Your task to perform on an android device: turn off picture-in-picture Image 0: 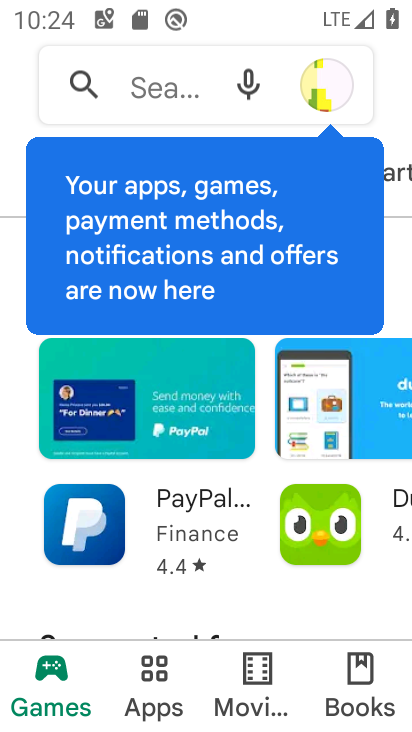
Step 0: press home button
Your task to perform on an android device: turn off picture-in-picture Image 1: 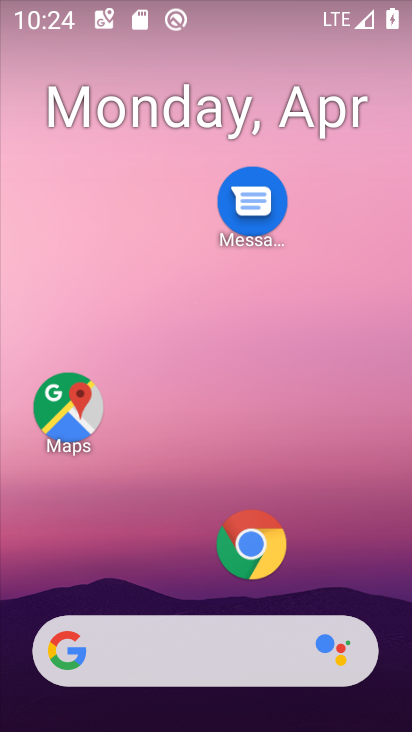
Step 1: drag from (191, 578) to (196, 137)
Your task to perform on an android device: turn off picture-in-picture Image 2: 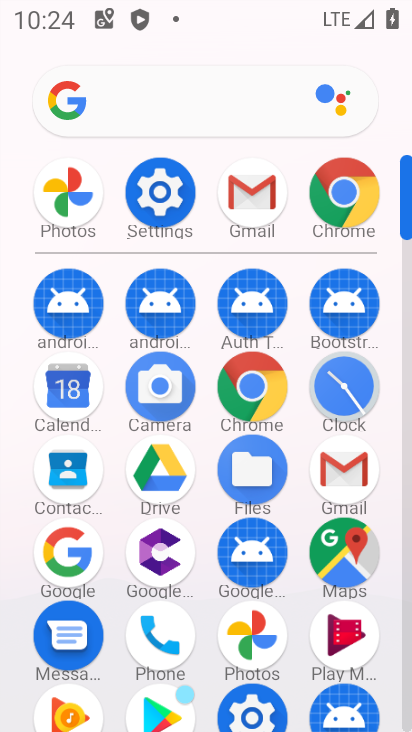
Step 2: click (247, 381)
Your task to perform on an android device: turn off picture-in-picture Image 3: 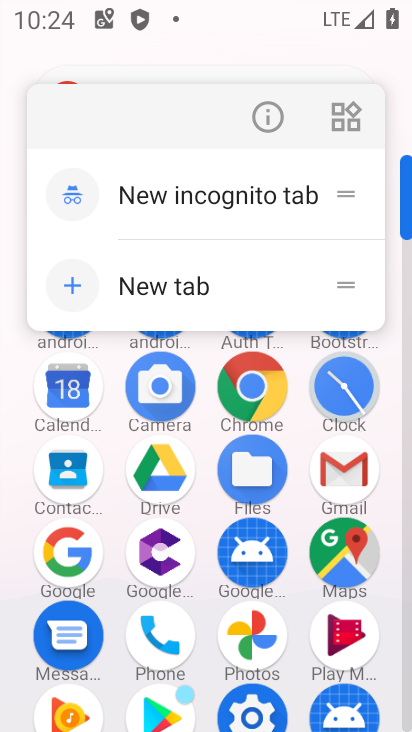
Step 3: click (260, 109)
Your task to perform on an android device: turn off picture-in-picture Image 4: 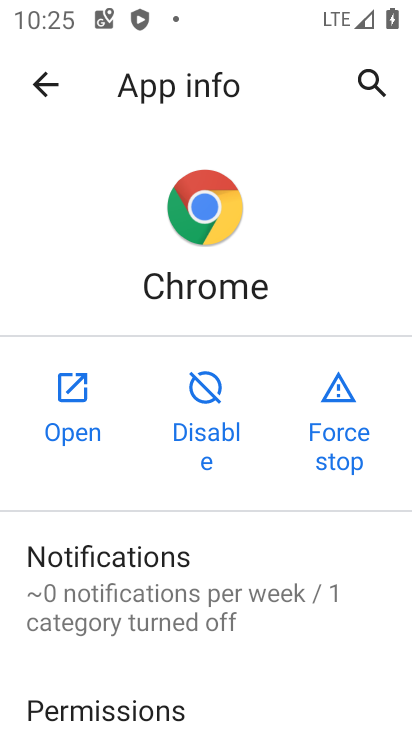
Step 4: drag from (205, 626) to (251, 72)
Your task to perform on an android device: turn off picture-in-picture Image 5: 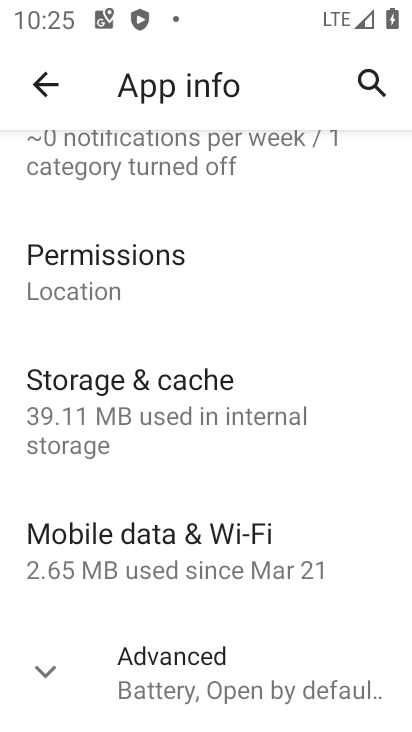
Step 5: click (76, 671)
Your task to perform on an android device: turn off picture-in-picture Image 6: 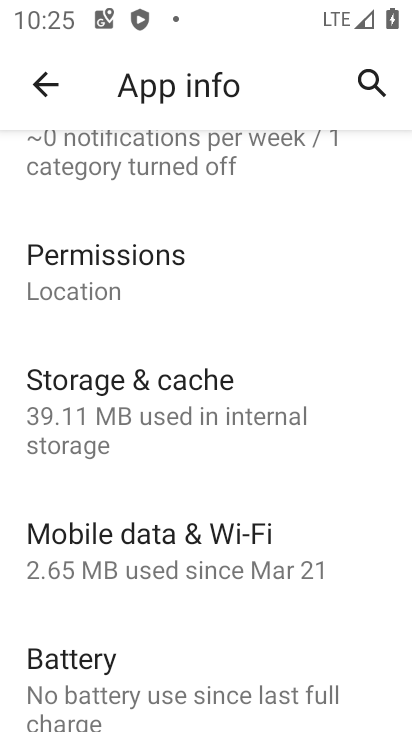
Step 6: drag from (154, 638) to (198, 134)
Your task to perform on an android device: turn off picture-in-picture Image 7: 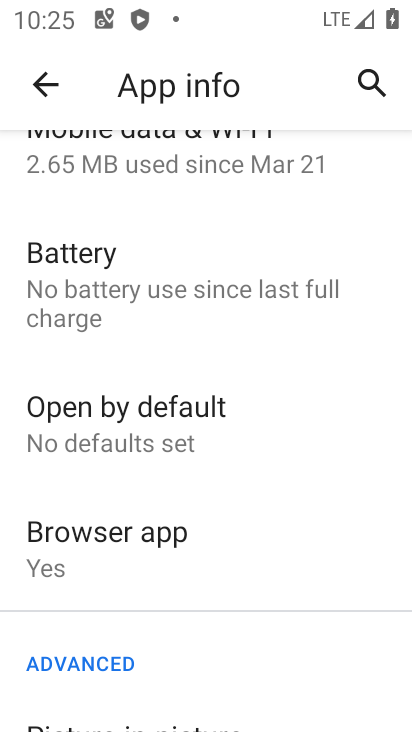
Step 7: drag from (159, 573) to (225, 106)
Your task to perform on an android device: turn off picture-in-picture Image 8: 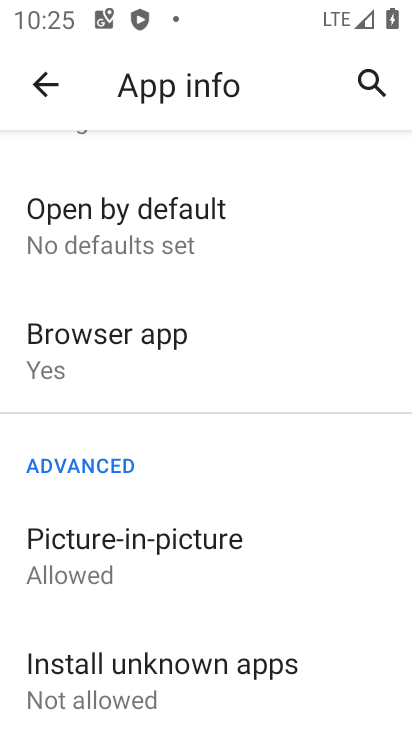
Step 8: click (152, 565)
Your task to perform on an android device: turn off picture-in-picture Image 9: 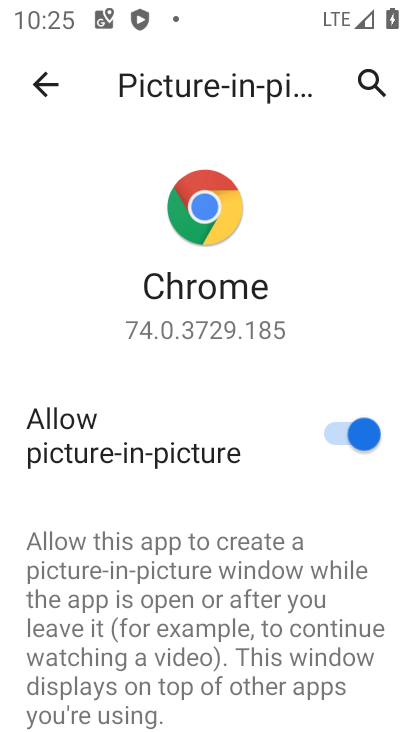
Step 9: click (325, 433)
Your task to perform on an android device: turn off picture-in-picture Image 10: 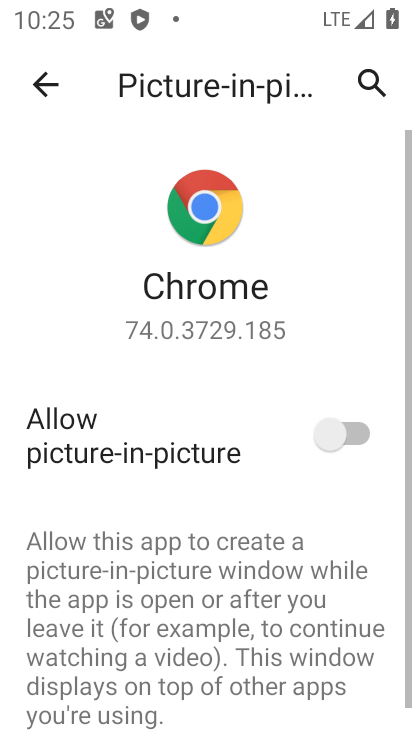
Step 10: task complete